Your task to perform on an android device: Open maps Image 0: 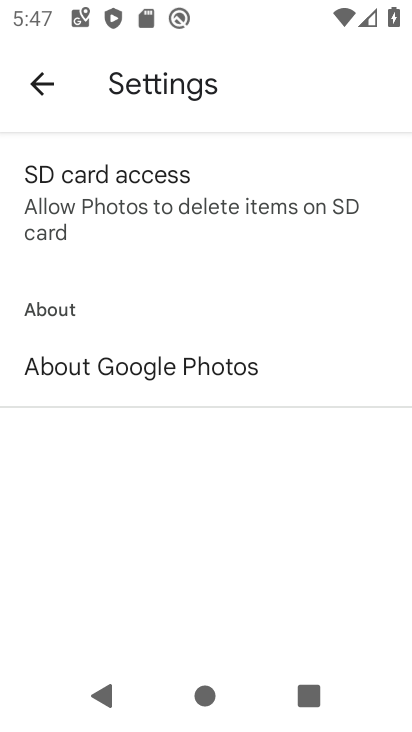
Step 0: press home button
Your task to perform on an android device: Open maps Image 1: 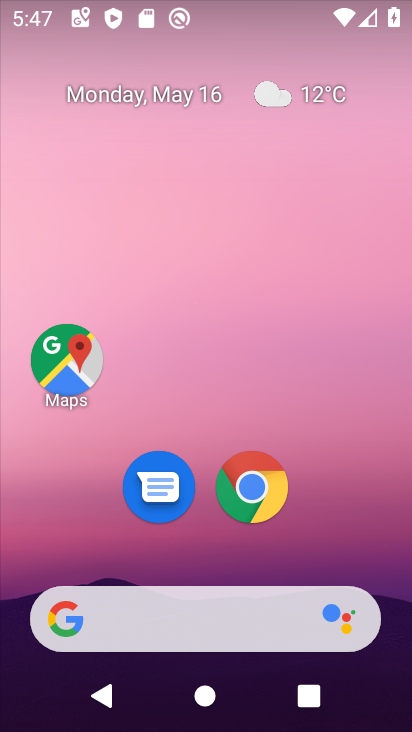
Step 1: click (84, 365)
Your task to perform on an android device: Open maps Image 2: 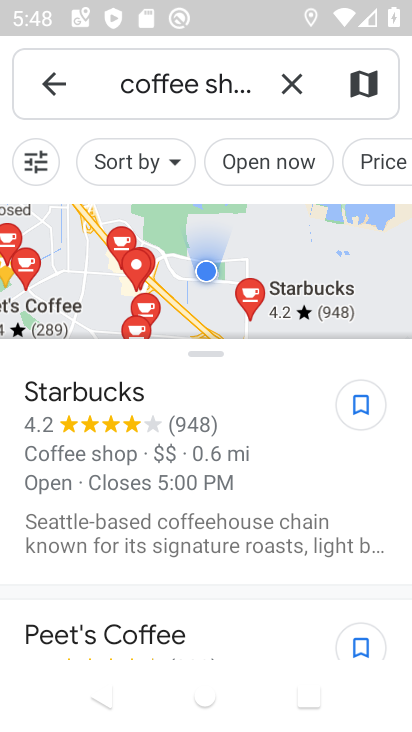
Step 2: task complete